Your task to perform on an android device: Open ESPN.com Image 0: 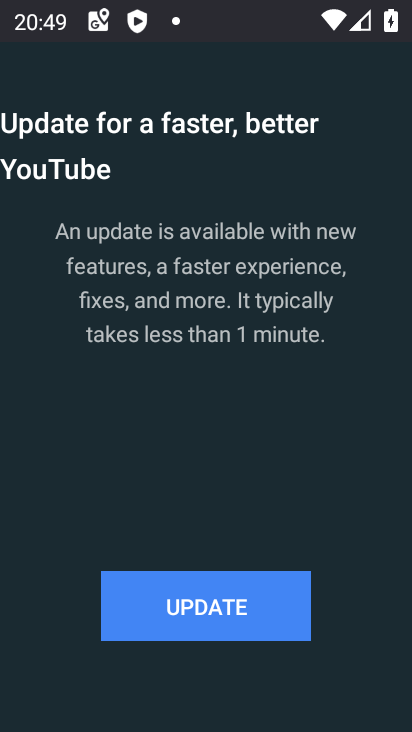
Step 0: press home button
Your task to perform on an android device: Open ESPN.com Image 1: 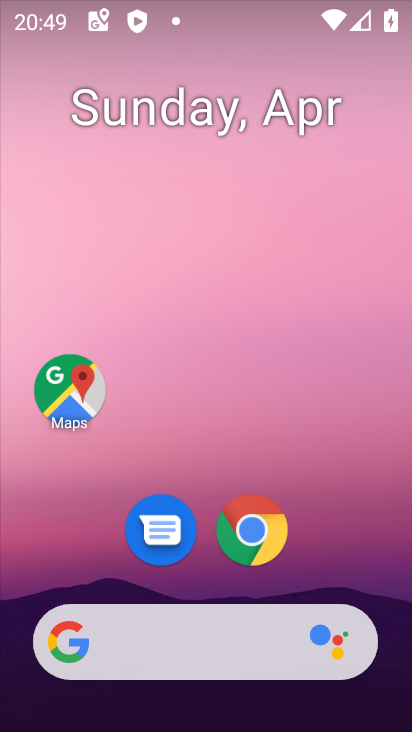
Step 1: click (236, 556)
Your task to perform on an android device: Open ESPN.com Image 2: 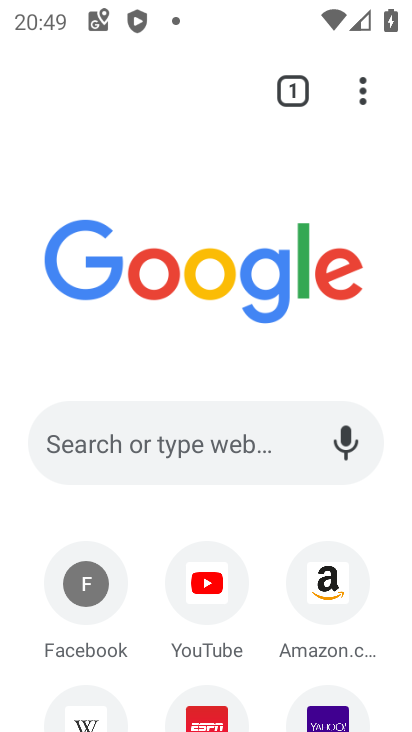
Step 2: click (201, 721)
Your task to perform on an android device: Open ESPN.com Image 3: 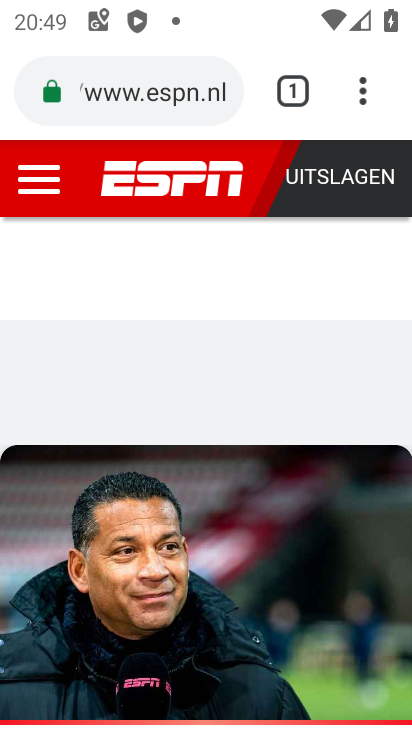
Step 3: task complete